Your task to perform on an android device: turn on notifications settings in the gmail app Image 0: 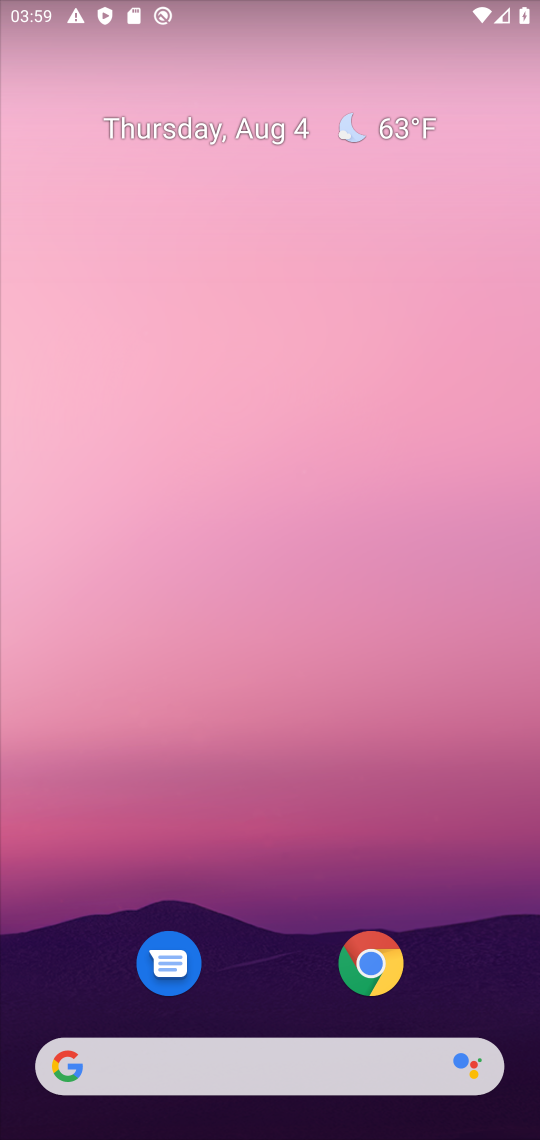
Step 0: drag from (489, 990) to (496, 50)
Your task to perform on an android device: turn on notifications settings in the gmail app Image 1: 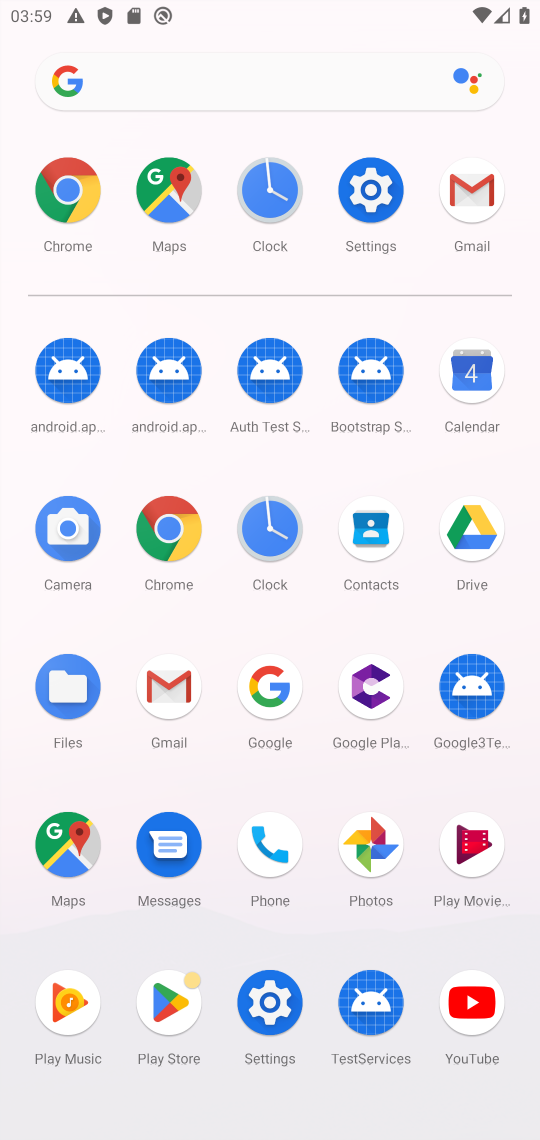
Step 1: click (470, 196)
Your task to perform on an android device: turn on notifications settings in the gmail app Image 2: 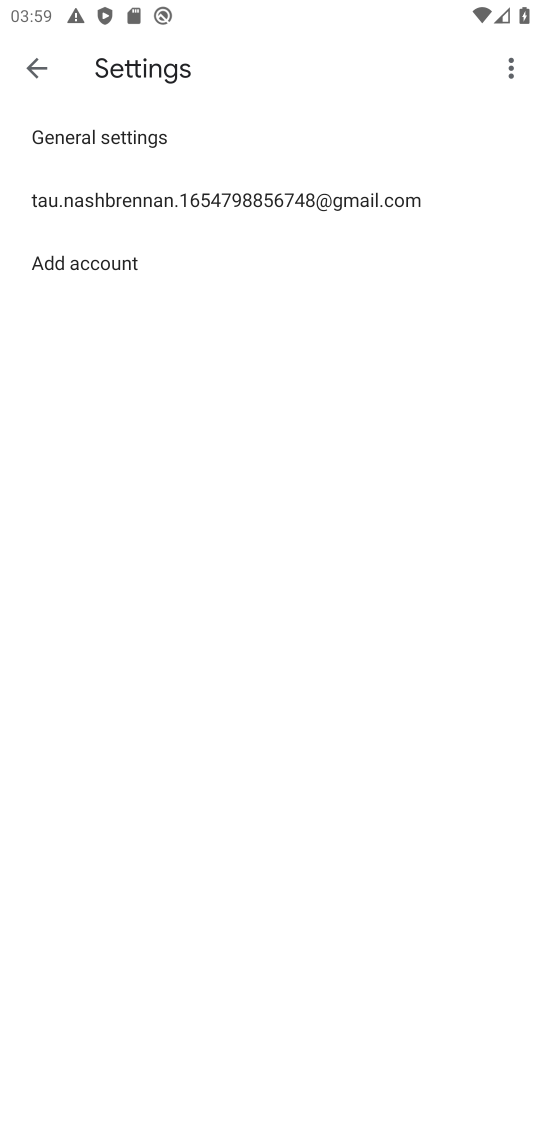
Step 2: click (146, 133)
Your task to perform on an android device: turn on notifications settings in the gmail app Image 3: 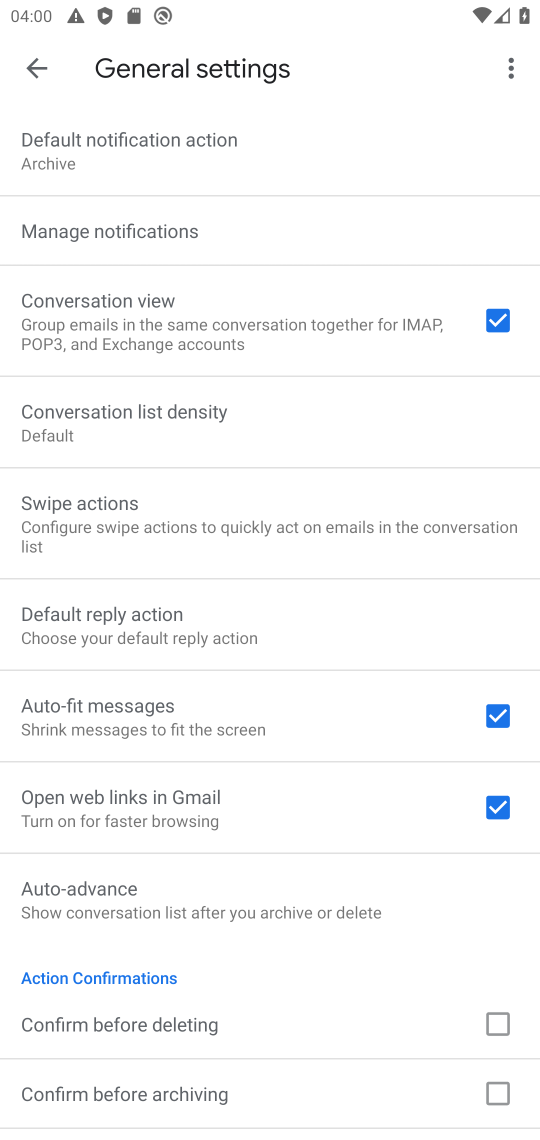
Step 3: click (122, 243)
Your task to perform on an android device: turn on notifications settings in the gmail app Image 4: 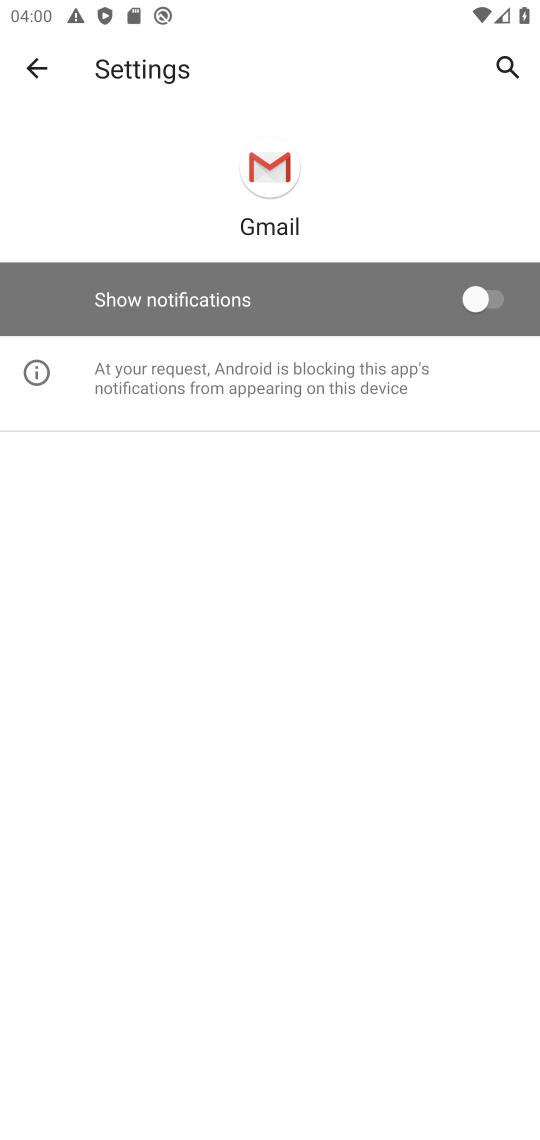
Step 4: click (471, 294)
Your task to perform on an android device: turn on notifications settings in the gmail app Image 5: 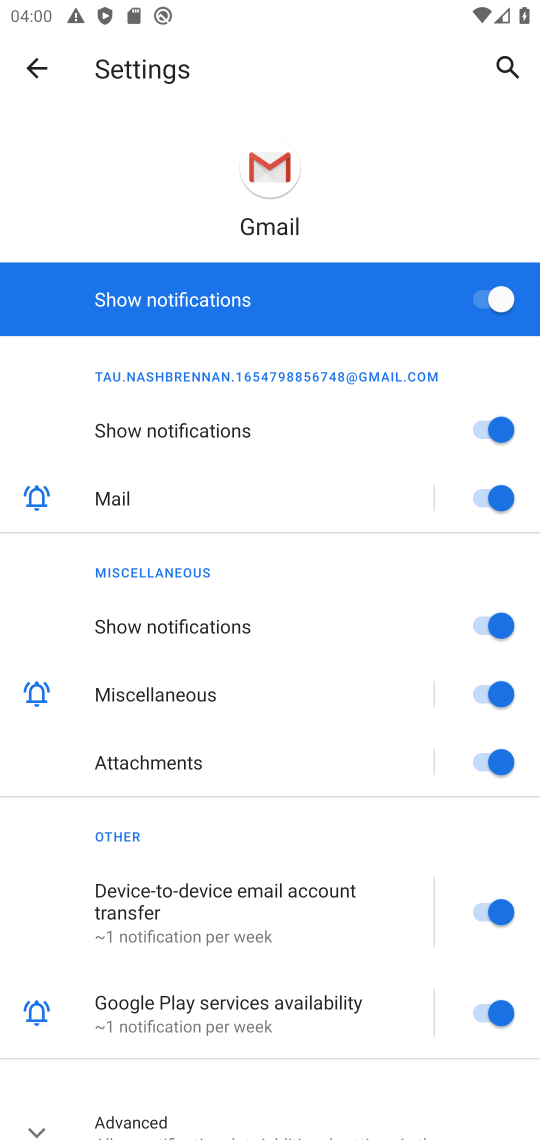
Step 5: task complete